Your task to perform on an android device: Go to sound settings Image 0: 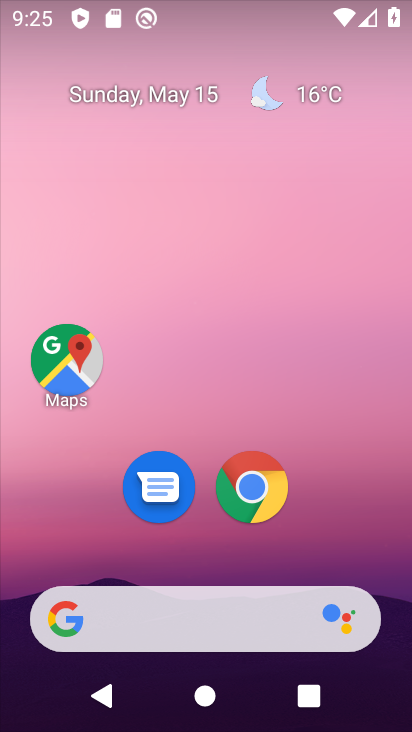
Step 0: drag from (361, 523) to (382, 133)
Your task to perform on an android device: Go to sound settings Image 1: 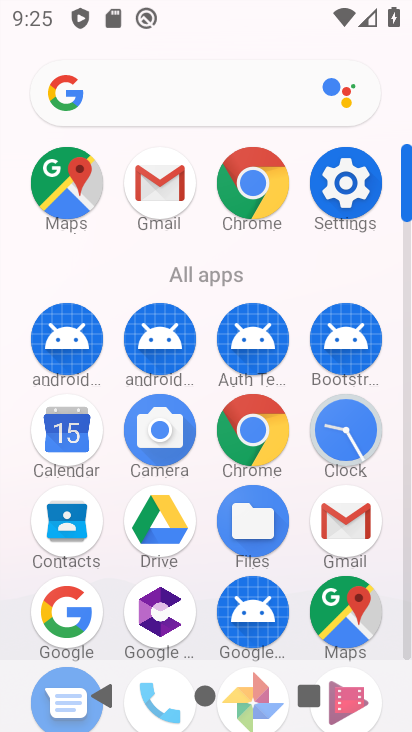
Step 1: click (350, 197)
Your task to perform on an android device: Go to sound settings Image 2: 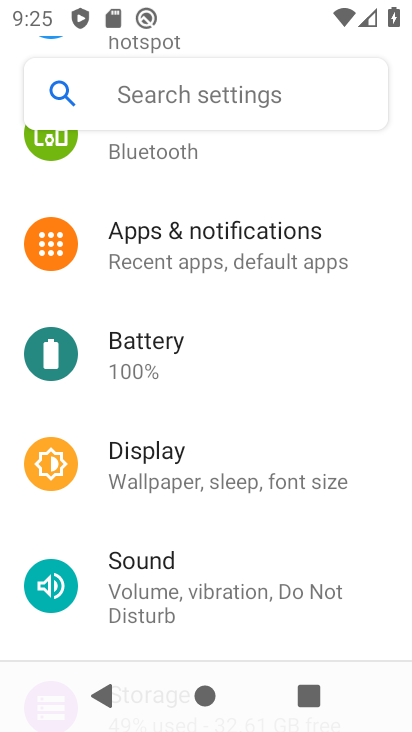
Step 2: drag from (246, 240) to (296, 244)
Your task to perform on an android device: Go to sound settings Image 3: 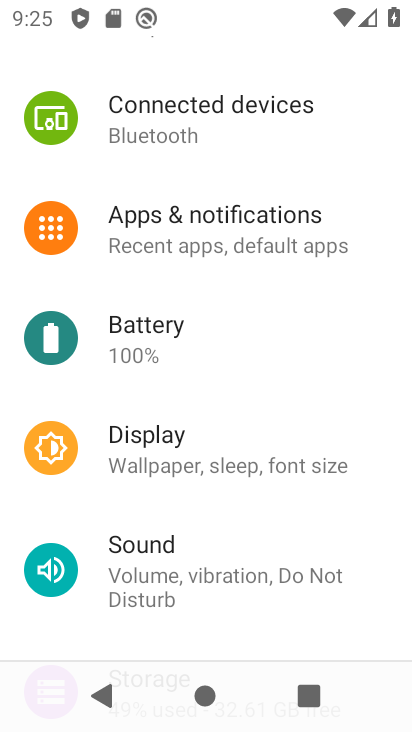
Step 3: click (234, 546)
Your task to perform on an android device: Go to sound settings Image 4: 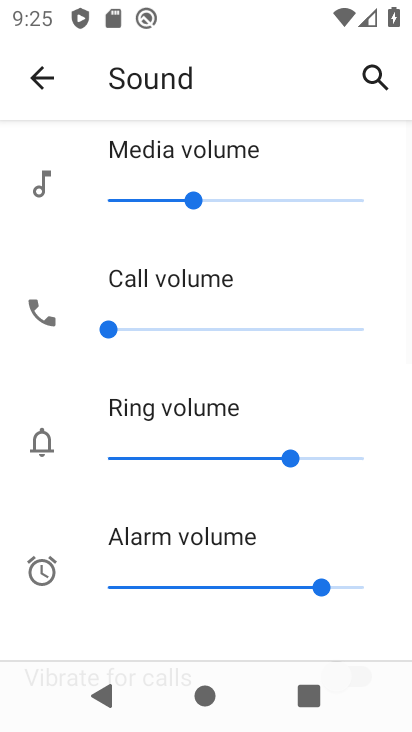
Step 4: task complete